Your task to perform on an android device: see creations saved in the google photos Image 0: 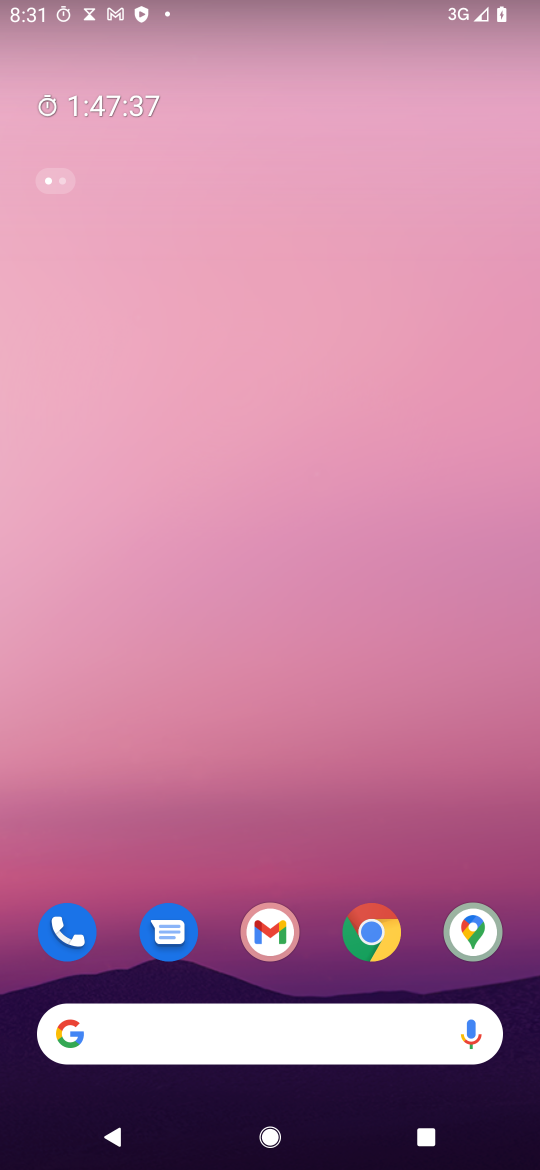
Step 0: drag from (353, 869) to (383, 141)
Your task to perform on an android device: see creations saved in the google photos Image 1: 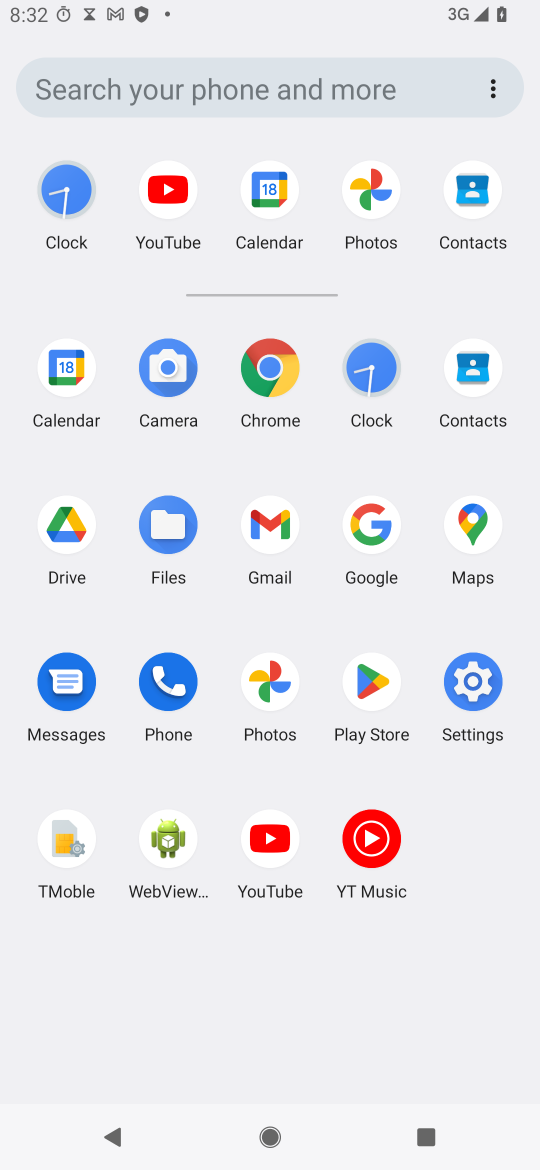
Step 1: click (276, 679)
Your task to perform on an android device: see creations saved in the google photos Image 2: 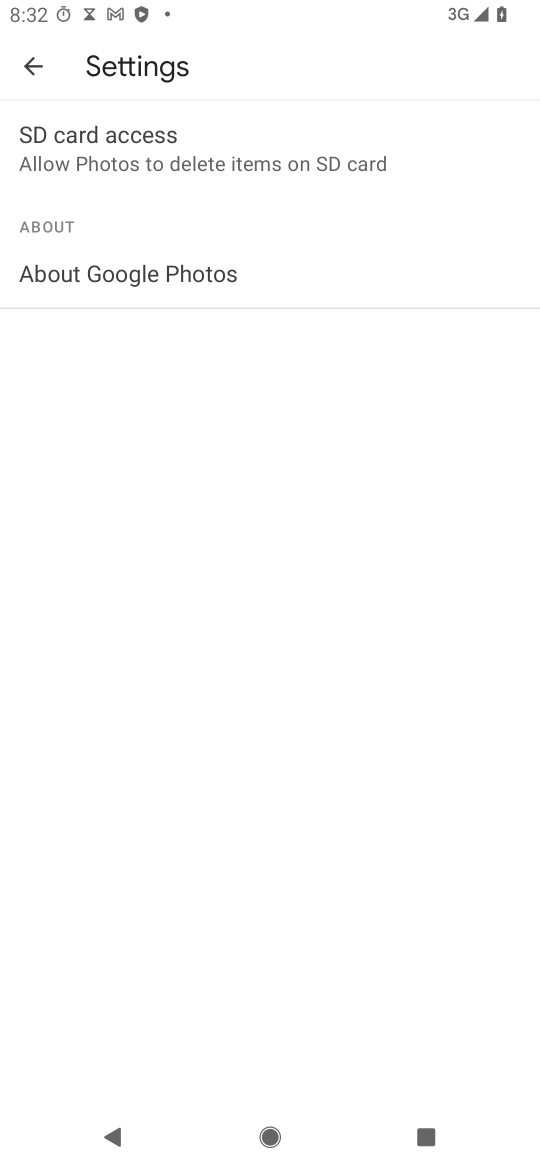
Step 2: click (34, 69)
Your task to perform on an android device: see creations saved in the google photos Image 3: 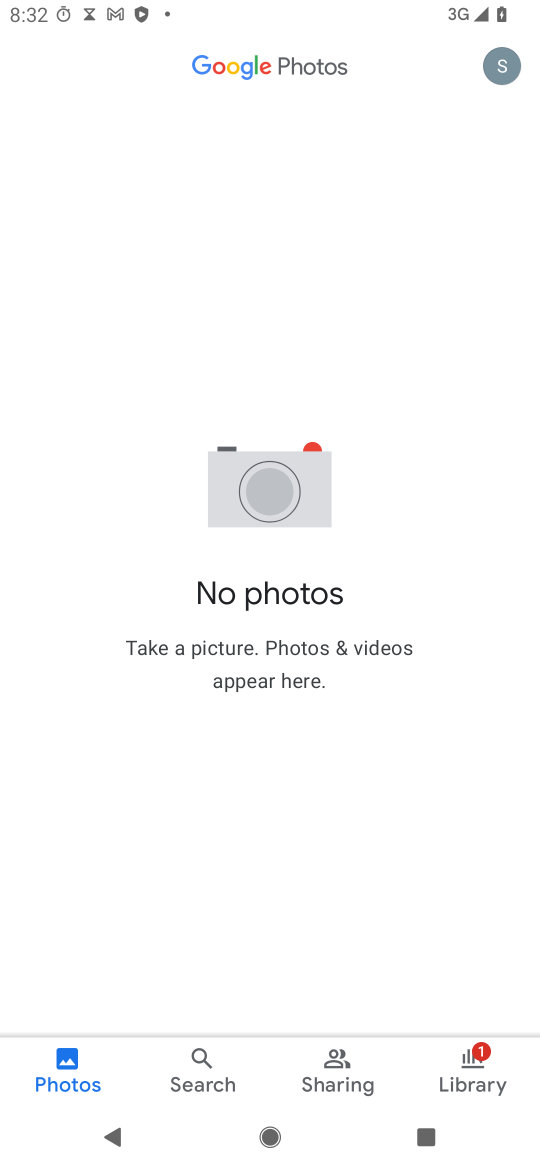
Step 3: task complete